Your task to perform on an android device: turn notification dots off Image 0: 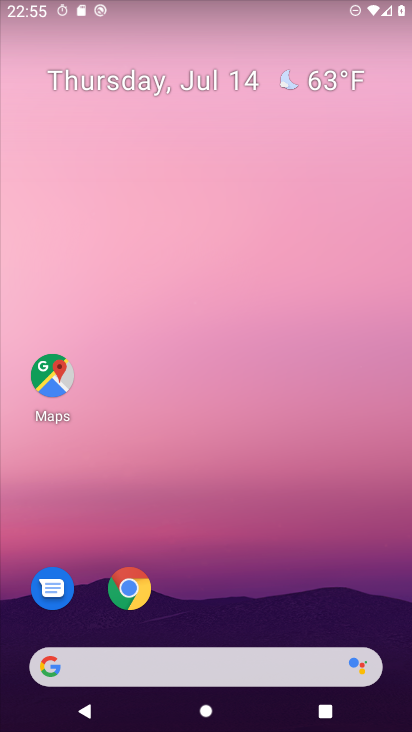
Step 0: drag from (362, 595) to (364, 45)
Your task to perform on an android device: turn notification dots off Image 1: 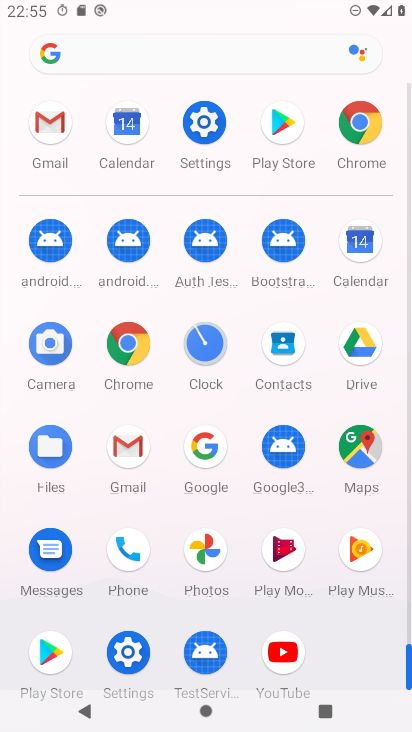
Step 1: click (212, 124)
Your task to perform on an android device: turn notification dots off Image 2: 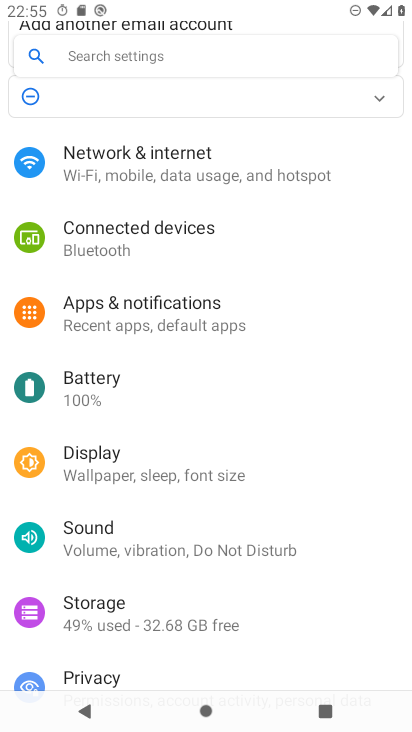
Step 2: drag from (361, 443) to (370, 367)
Your task to perform on an android device: turn notification dots off Image 3: 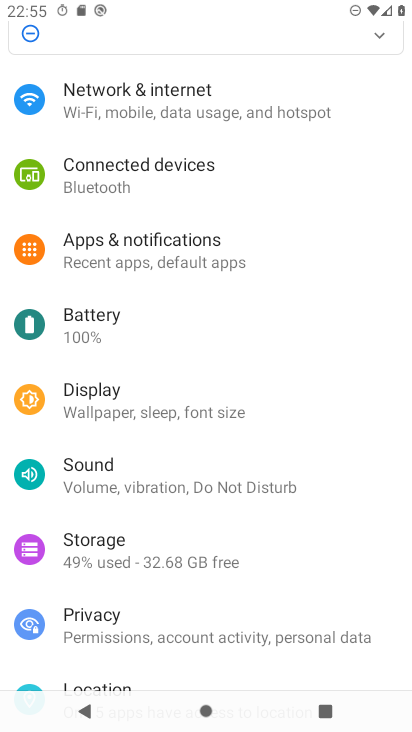
Step 3: drag from (352, 480) to (355, 355)
Your task to perform on an android device: turn notification dots off Image 4: 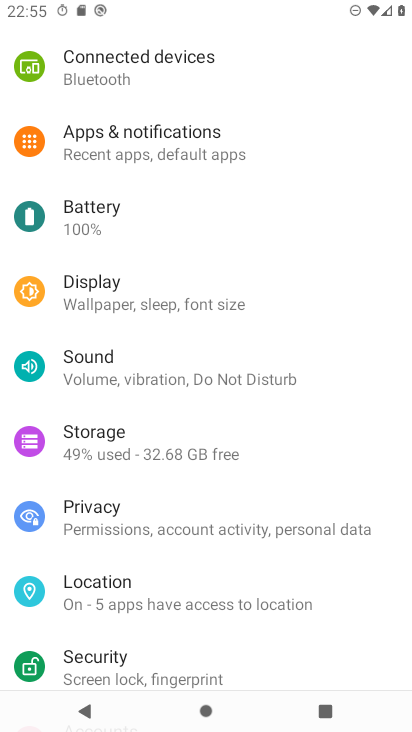
Step 4: drag from (348, 482) to (350, 243)
Your task to perform on an android device: turn notification dots off Image 5: 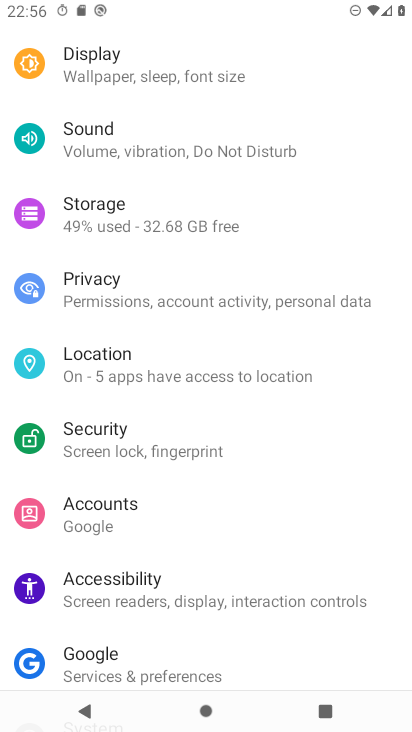
Step 5: drag from (363, 477) to (356, 272)
Your task to perform on an android device: turn notification dots off Image 6: 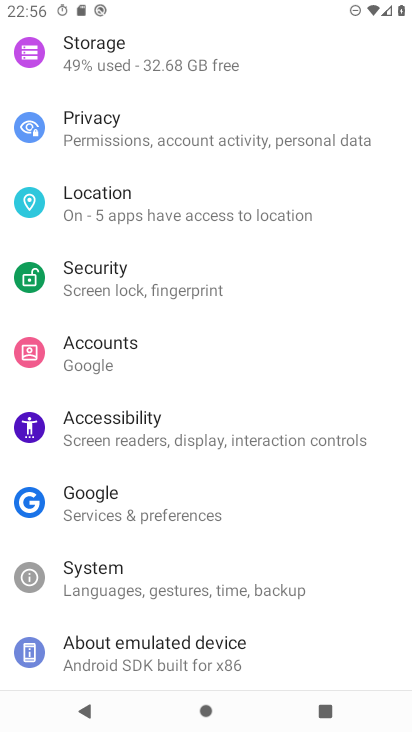
Step 6: drag from (346, 364) to (338, 261)
Your task to perform on an android device: turn notification dots off Image 7: 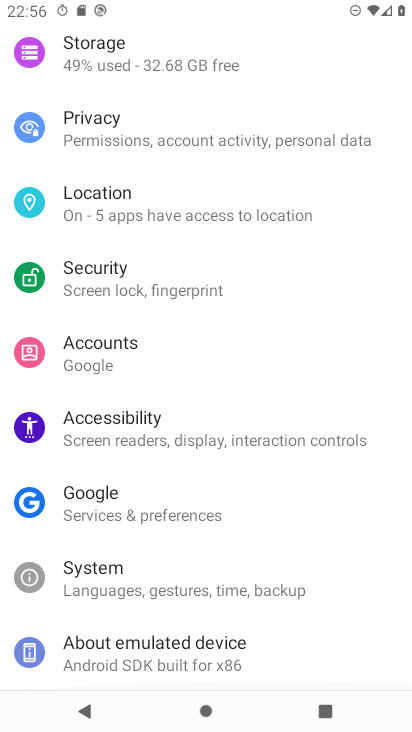
Step 7: drag from (339, 246) to (342, 318)
Your task to perform on an android device: turn notification dots off Image 8: 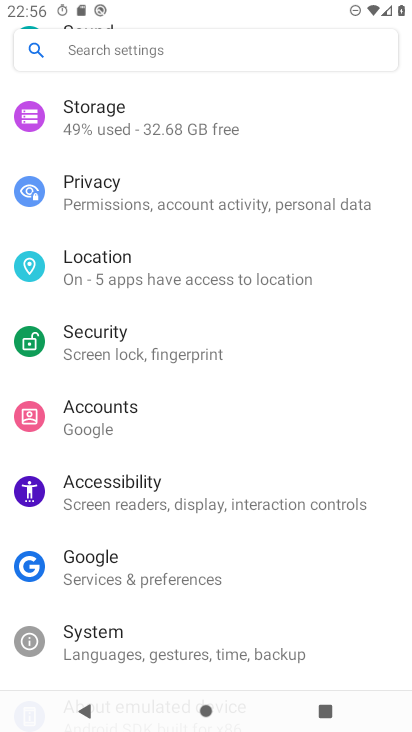
Step 8: drag from (341, 246) to (349, 326)
Your task to perform on an android device: turn notification dots off Image 9: 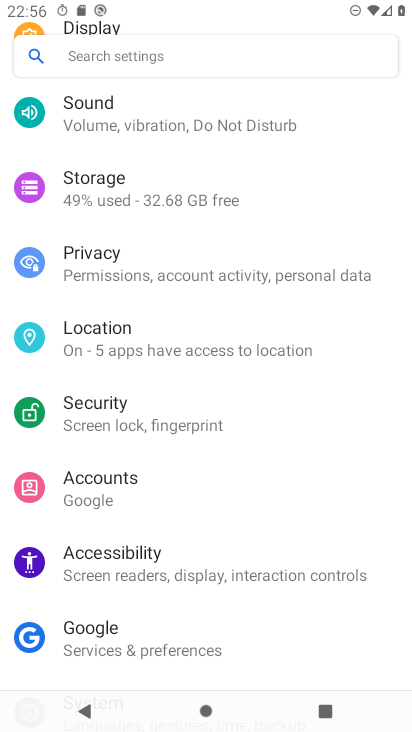
Step 9: drag from (349, 205) to (353, 316)
Your task to perform on an android device: turn notification dots off Image 10: 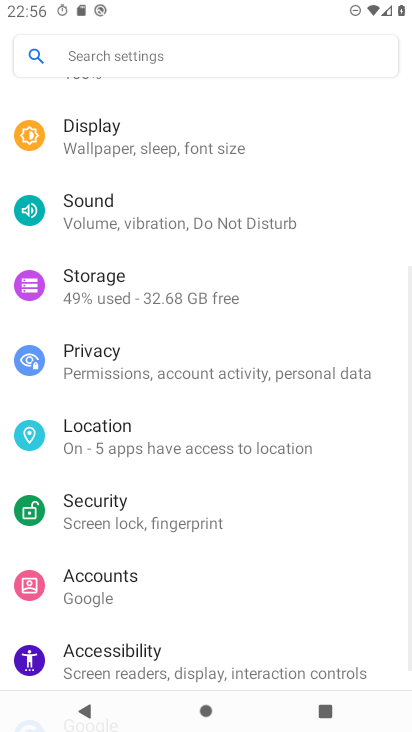
Step 10: drag from (340, 195) to (345, 285)
Your task to perform on an android device: turn notification dots off Image 11: 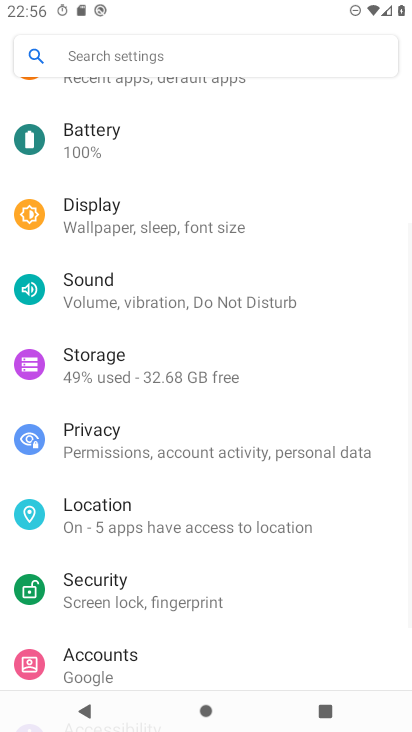
Step 11: drag from (347, 199) to (350, 302)
Your task to perform on an android device: turn notification dots off Image 12: 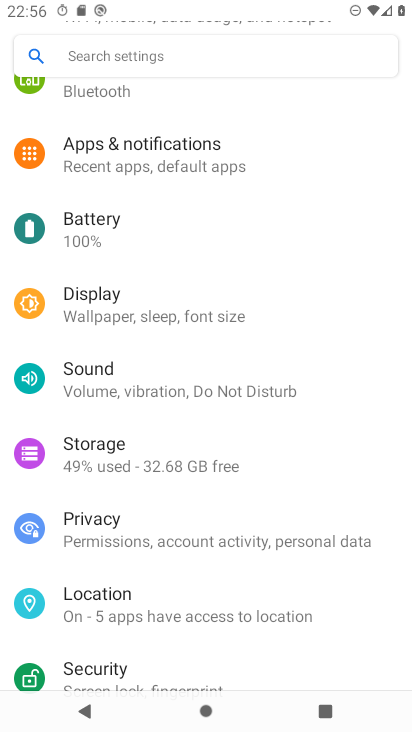
Step 12: click (218, 157)
Your task to perform on an android device: turn notification dots off Image 13: 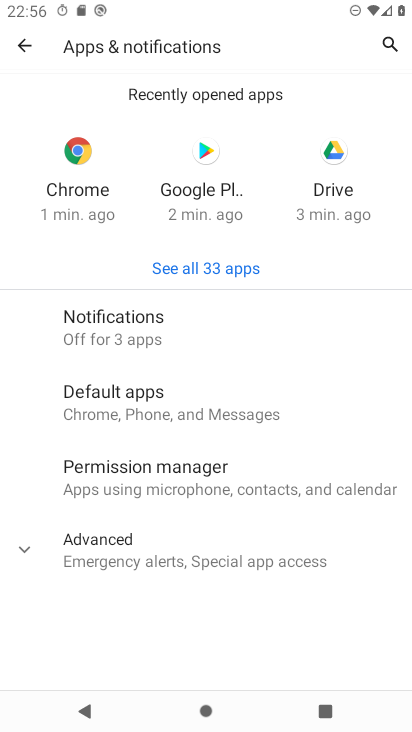
Step 13: click (187, 330)
Your task to perform on an android device: turn notification dots off Image 14: 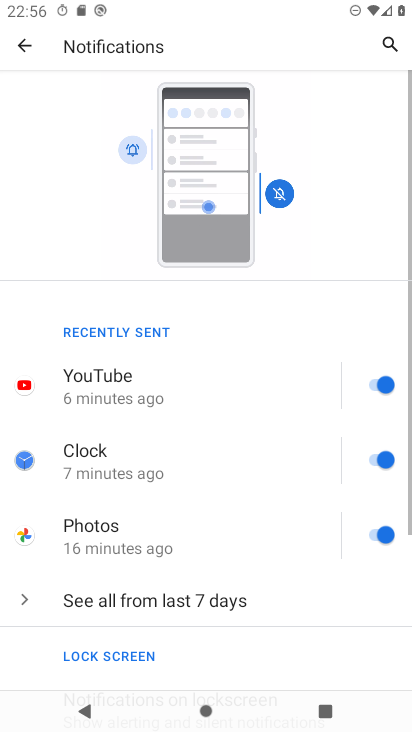
Step 14: drag from (268, 481) to (274, 309)
Your task to perform on an android device: turn notification dots off Image 15: 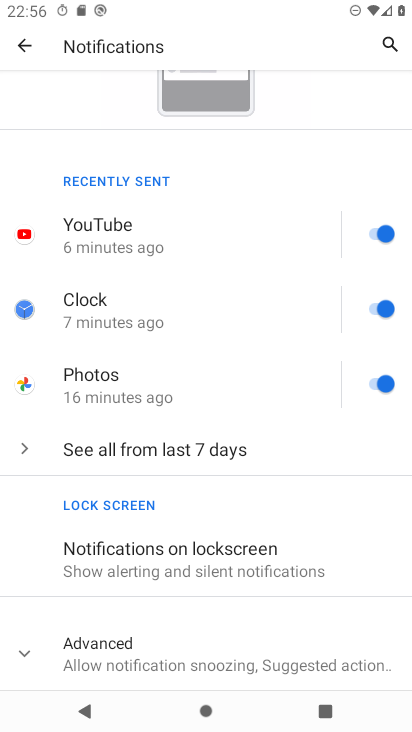
Step 15: drag from (269, 602) to (268, 427)
Your task to perform on an android device: turn notification dots off Image 16: 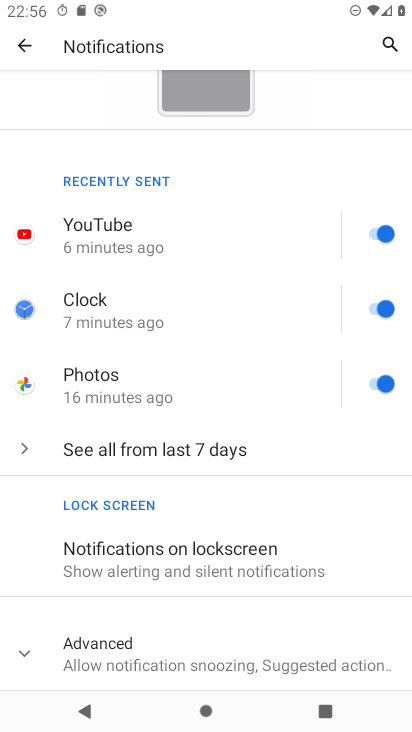
Step 16: click (267, 660)
Your task to perform on an android device: turn notification dots off Image 17: 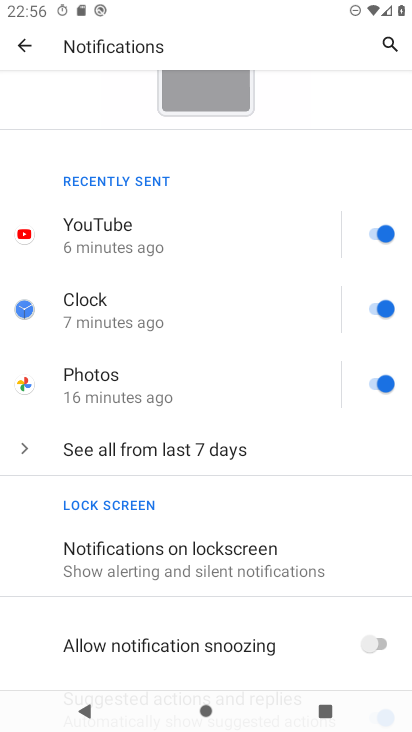
Step 17: task complete